Your task to perform on an android device: turn off location history Image 0: 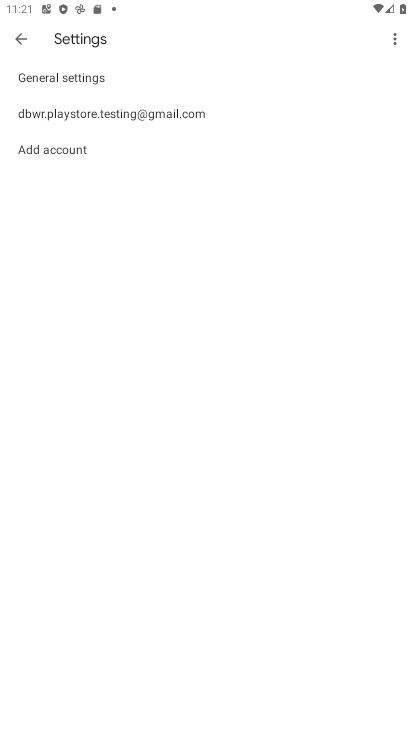
Step 0: press home button
Your task to perform on an android device: turn off location history Image 1: 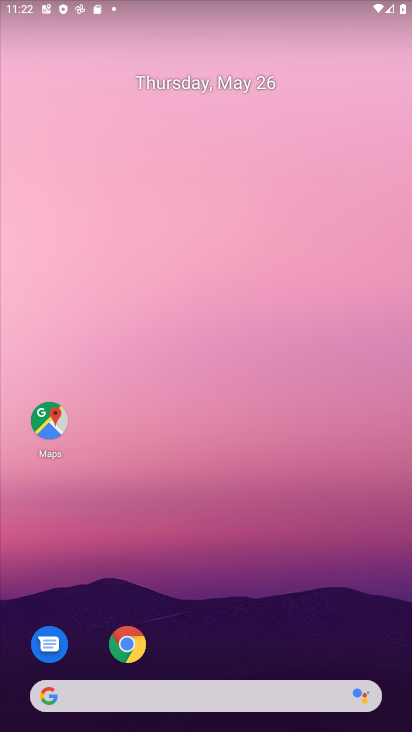
Step 1: click (367, 616)
Your task to perform on an android device: turn off location history Image 2: 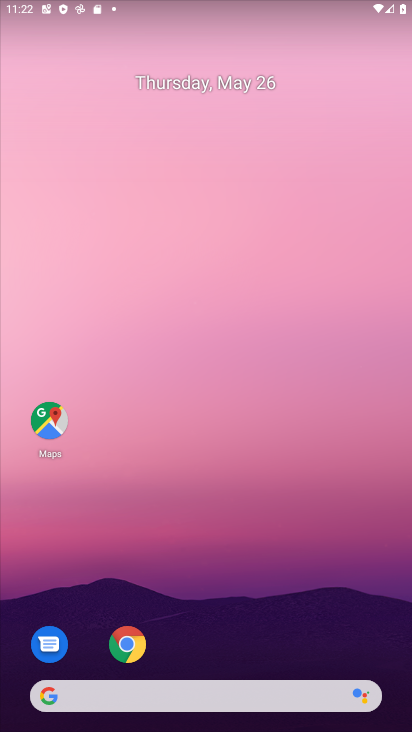
Step 2: drag from (353, 168) to (325, 48)
Your task to perform on an android device: turn off location history Image 3: 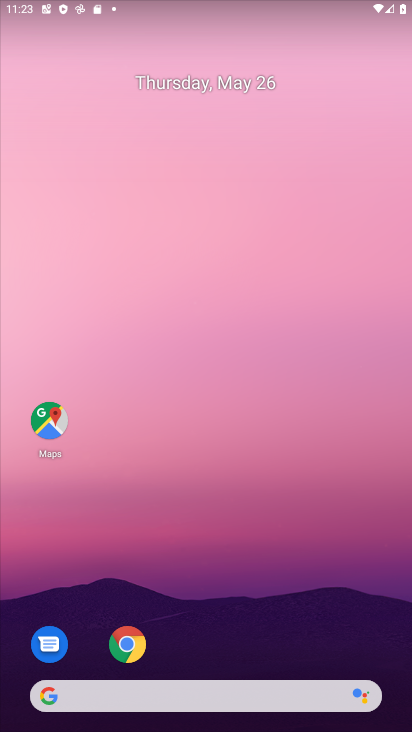
Step 3: drag from (264, 637) to (230, 0)
Your task to perform on an android device: turn off location history Image 4: 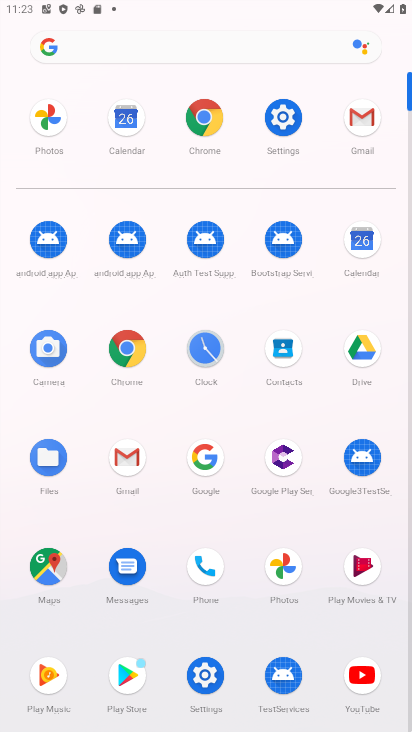
Step 4: click (193, 684)
Your task to perform on an android device: turn off location history Image 5: 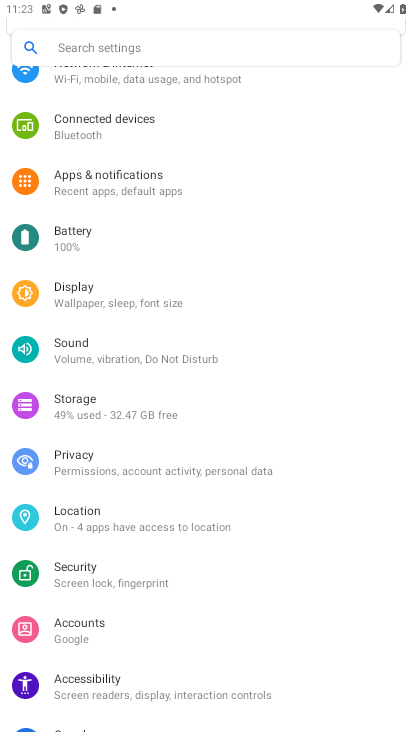
Step 5: click (70, 527)
Your task to perform on an android device: turn off location history Image 6: 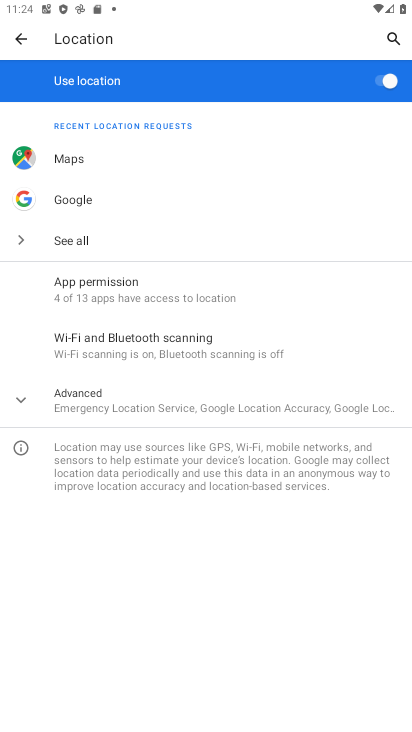
Step 6: click (70, 339)
Your task to perform on an android device: turn off location history Image 7: 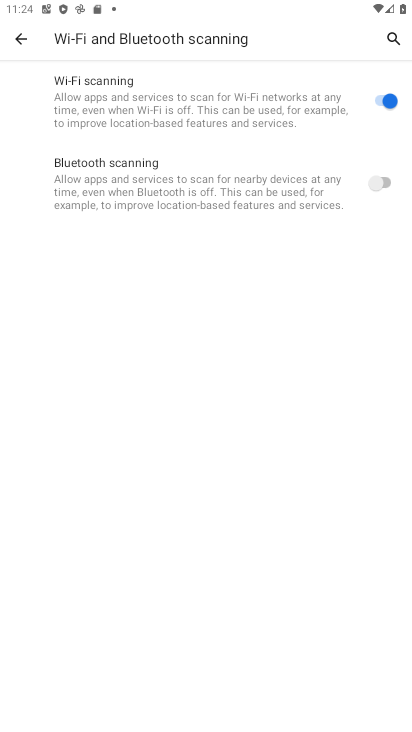
Step 7: press back button
Your task to perform on an android device: turn off location history Image 8: 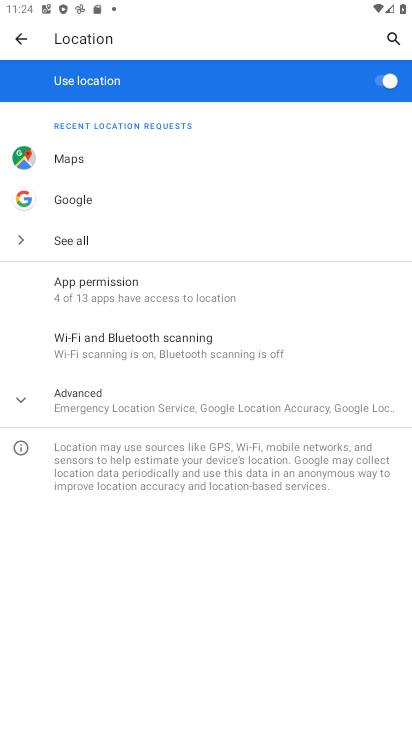
Step 8: click (131, 390)
Your task to perform on an android device: turn off location history Image 9: 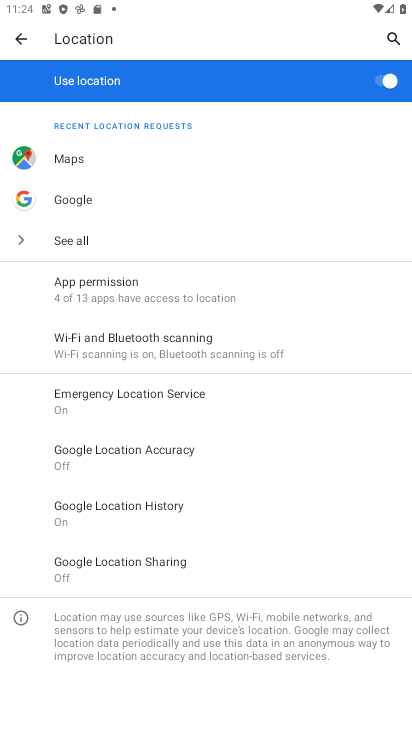
Step 9: click (175, 518)
Your task to perform on an android device: turn off location history Image 10: 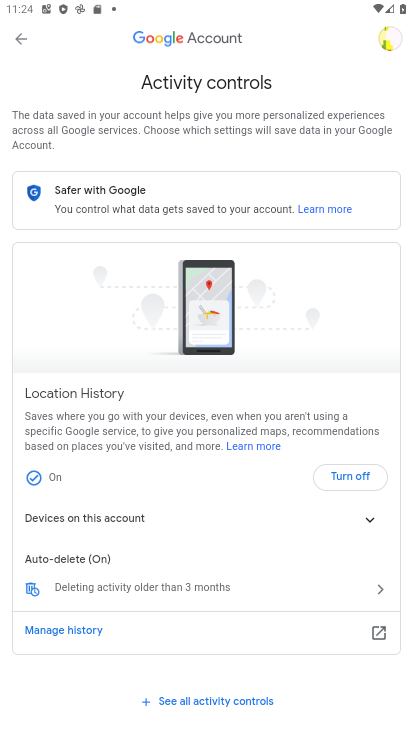
Step 10: click (347, 481)
Your task to perform on an android device: turn off location history Image 11: 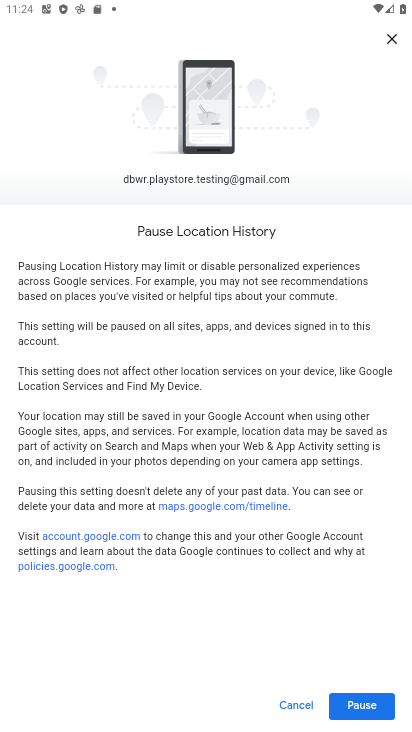
Step 11: click (315, 690)
Your task to perform on an android device: turn off location history Image 12: 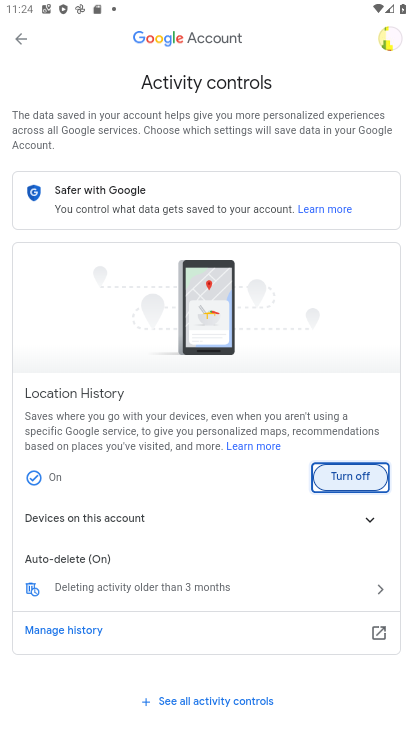
Step 12: task complete